Your task to perform on an android device: delete location history Image 0: 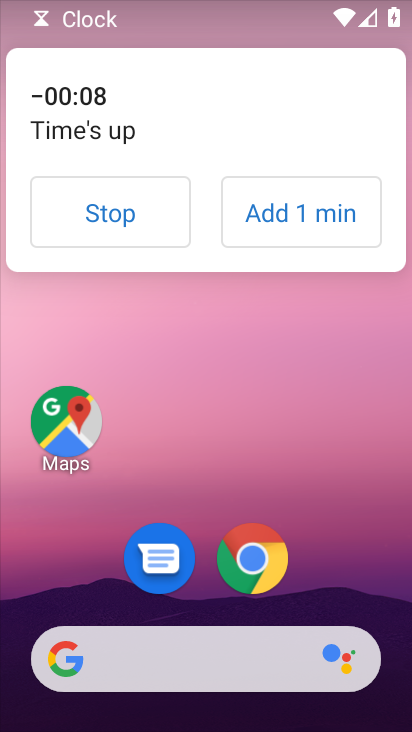
Step 0: click (120, 200)
Your task to perform on an android device: delete location history Image 1: 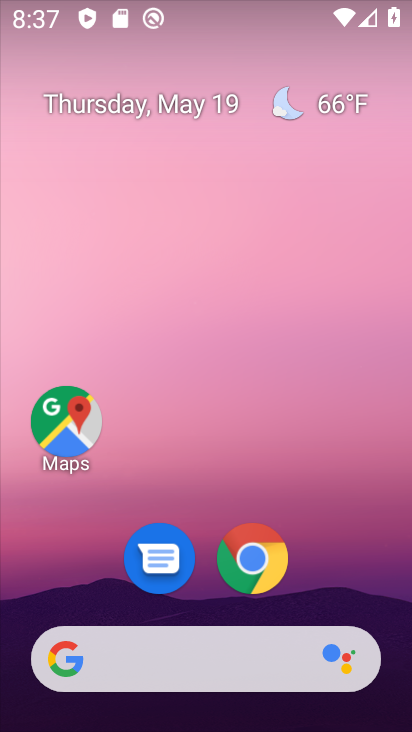
Step 1: click (72, 402)
Your task to perform on an android device: delete location history Image 2: 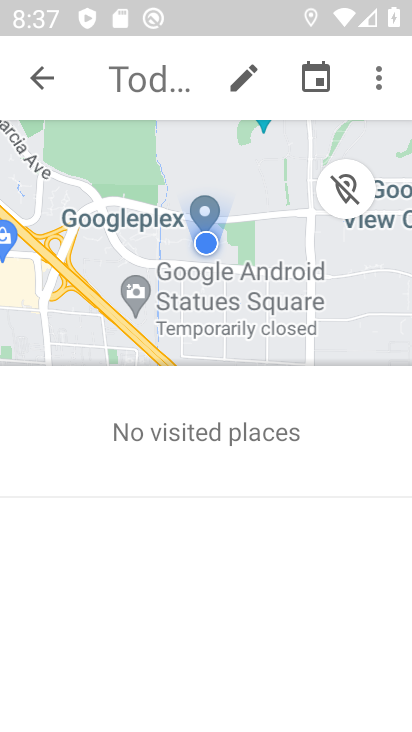
Step 2: click (53, 69)
Your task to perform on an android device: delete location history Image 3: 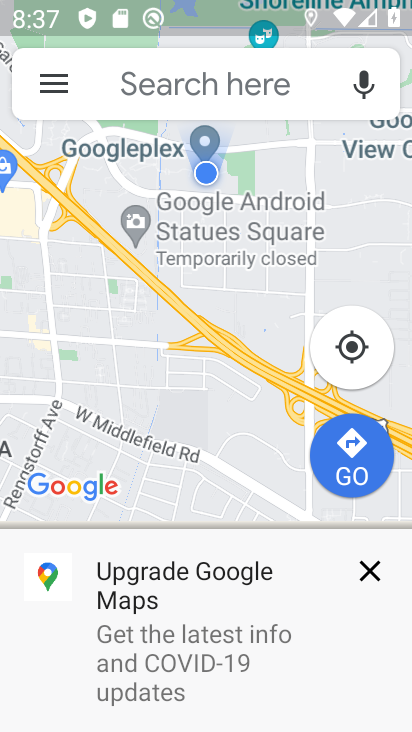
Step 3: click (59, 89)
Your task to perform on an android device: delete location history Image 4: 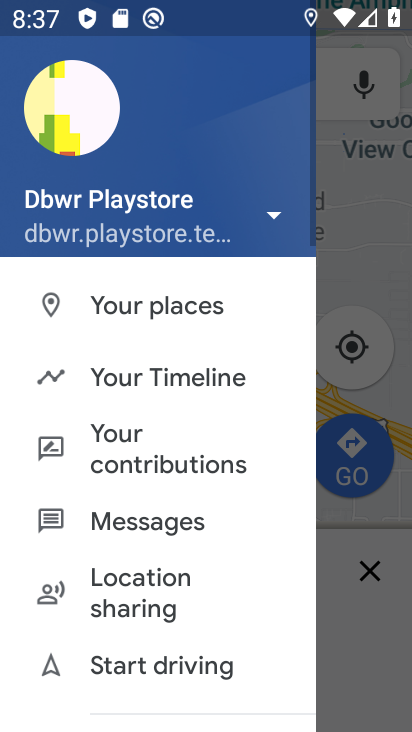
Step 4: click (134, 369)
Your task to perform on an android device: delete location history Image 5: 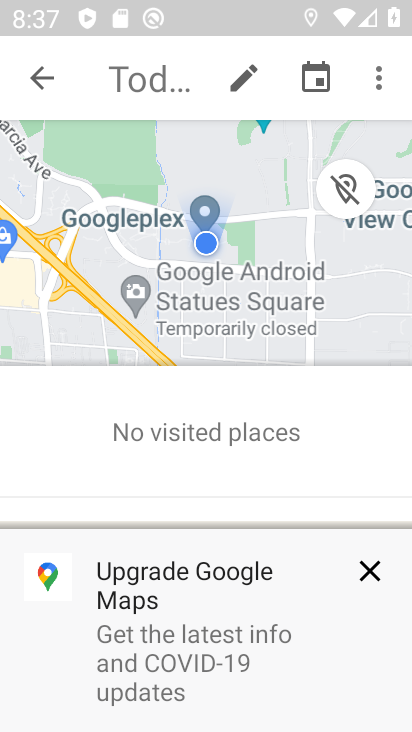
Step 5: click (379, 61)
Your task to perform on an android device: delete location history Image 6: 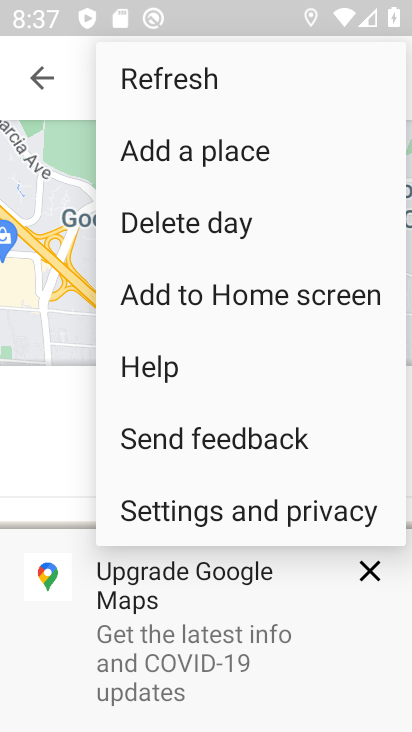
Step 6: click (251, 501)
Your task to perform on an android device: delete location history Image 7: 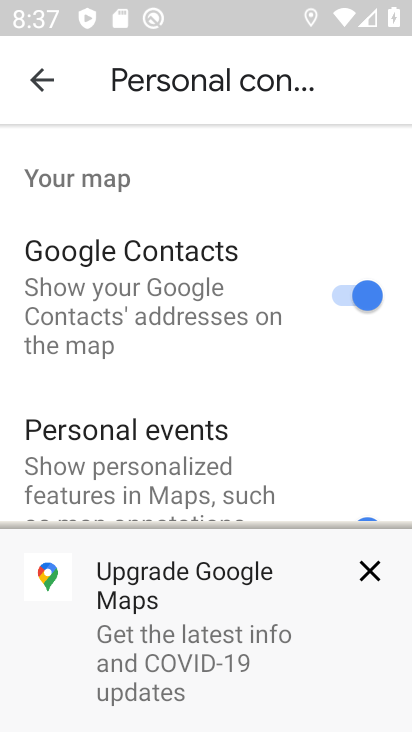
Step 7: click (366, 570)
Your task to perform on an android device: delete location history Image 8: 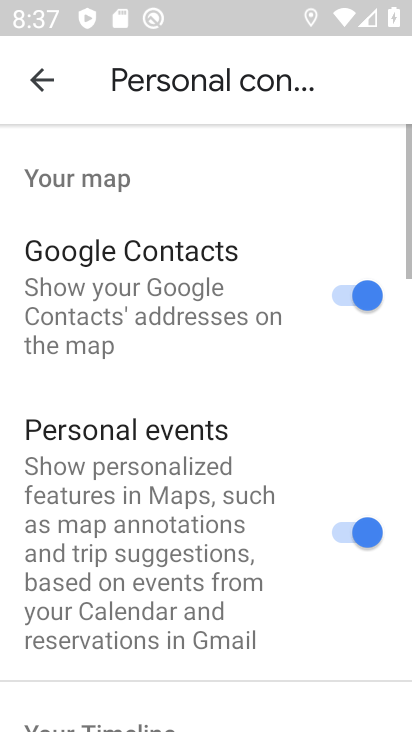
Step 8: drag from (205, 563) to (209, 246)
Your task to perform on an android device: delete location history Image 9: 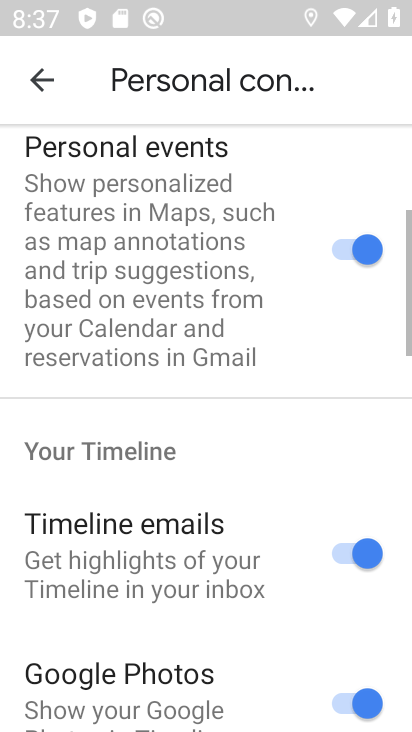
Step 9: drag from (205, 468) to (210, 251)
Your task to perform on an android device: delete location history Image 10: 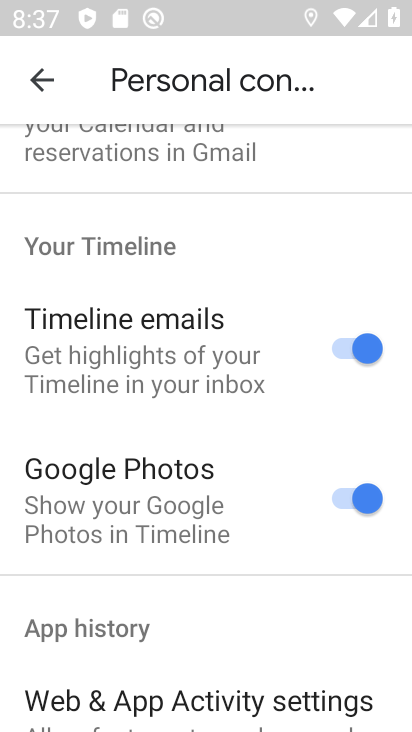
Step 10: drag from (209, 586) to (271, 245)
Your task to perform on an android device: delete location history Image 11: 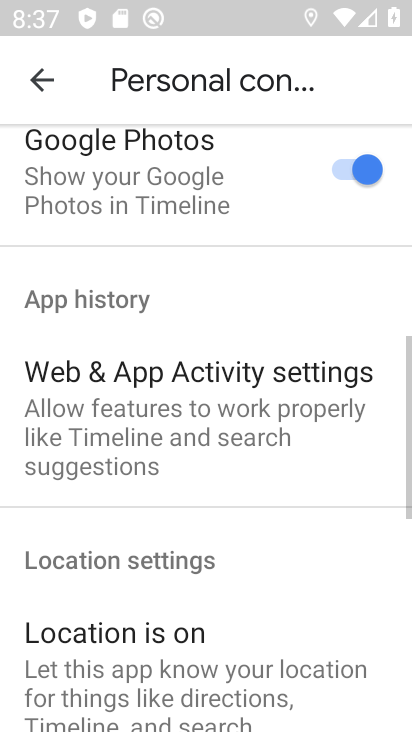
Step 11: drag from (257, 593) to (263, 462)
Your task to perform on an android device: delete location history Image 12: 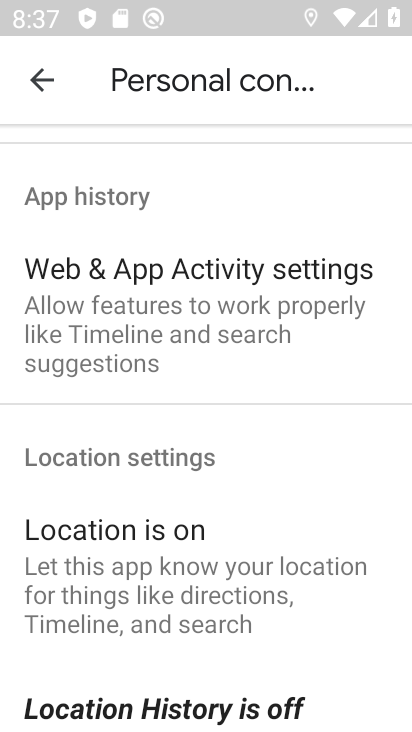
Step 12: drag from (239, 646) to (278, 381)
Your task to perform on an android device: delete location history Image 13: 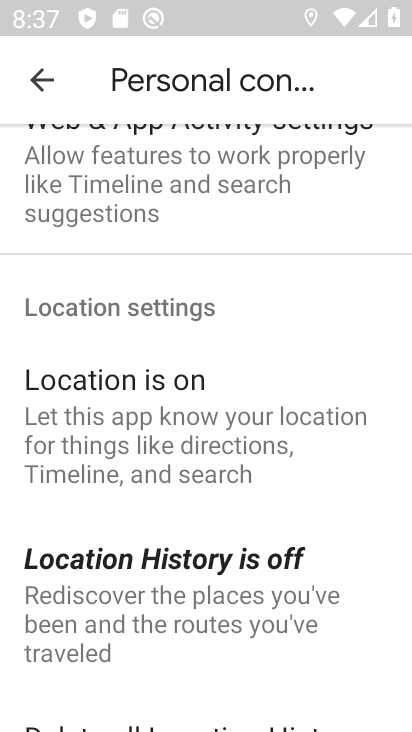
Step 13: drag from (241, 632) to (252, 415)
Your task to perform on an android device: delete location history Image 14: 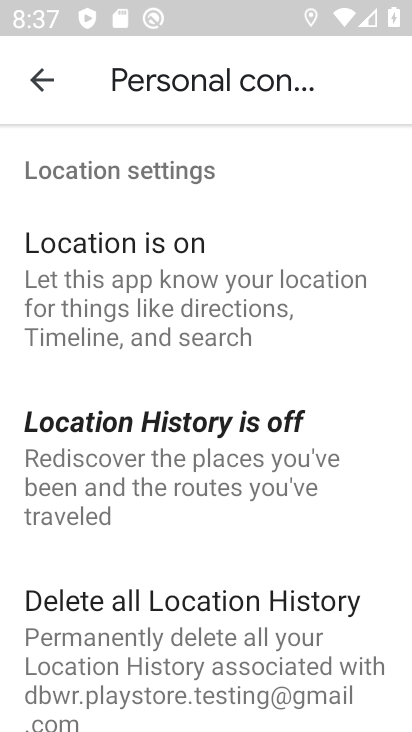
Step 14: click (204, 618)
Your task to perform on an android device: delete location history Image 15: 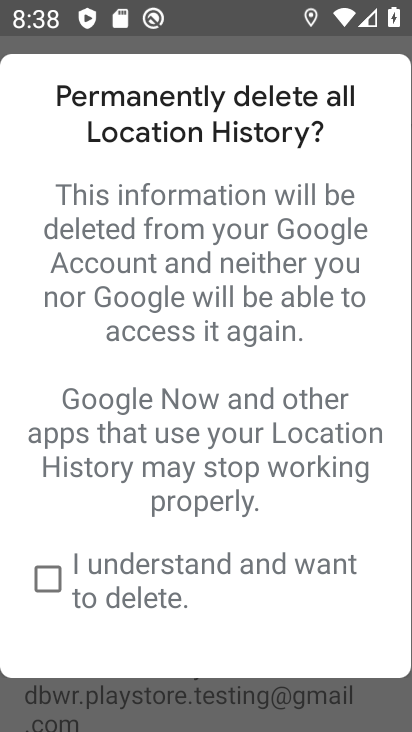
Step 15: click (150, 574)
Your task to perform on an android device: delete location history Image 16: 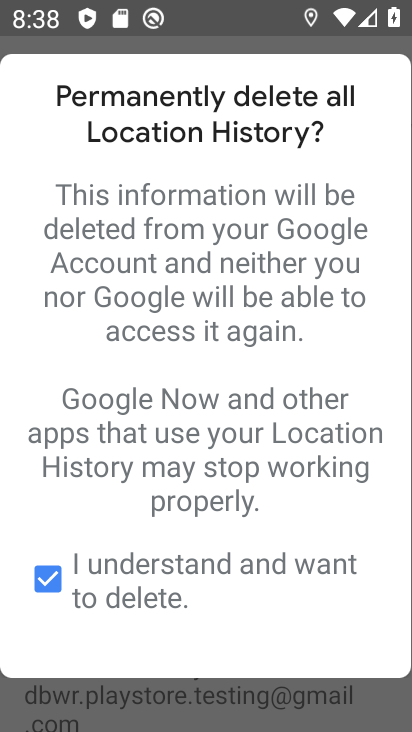
Step 16: drag from (212, 588) to (238, 295)
Your task to perform on an android device: delete location history Image 17: 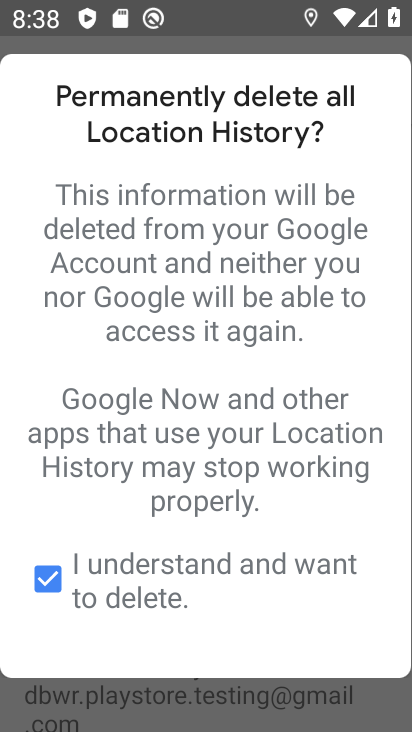
Step 17: click (325, 664)
Your task to perform on an android device: delete location history Image 18: 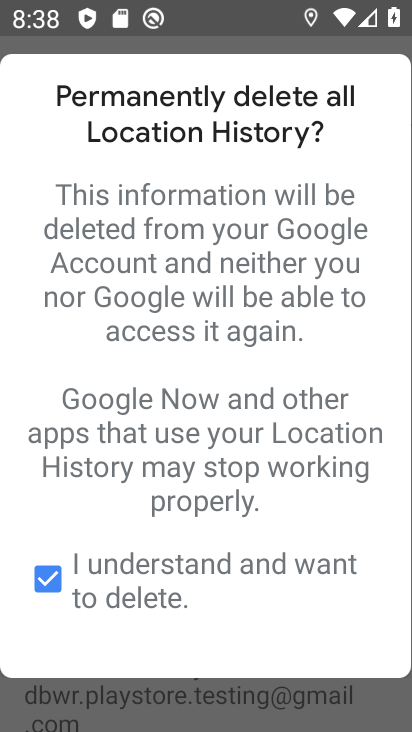
Step 18: click (348, 668)
Your task to perform on an android device: delete location history Image 19: 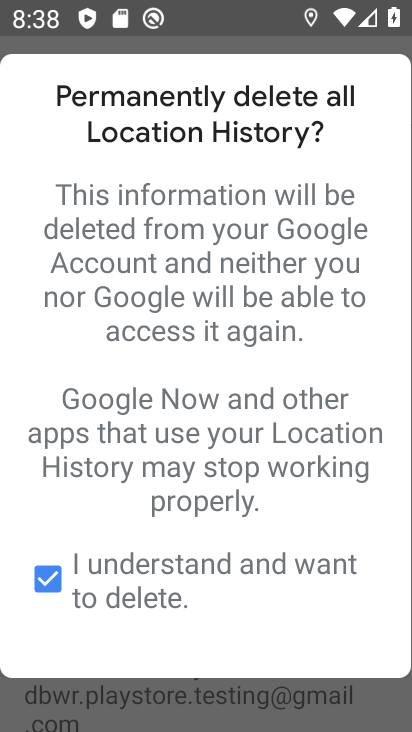
Step 19: click (341, 673)
Your task to perform on an android device: delete location history Image 20: 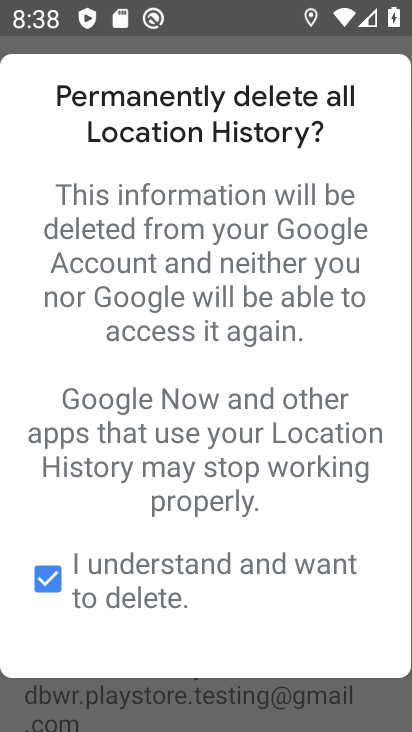
Step 20: click (341, 673)
Your task to perform on an android device: delete location history Image 21: 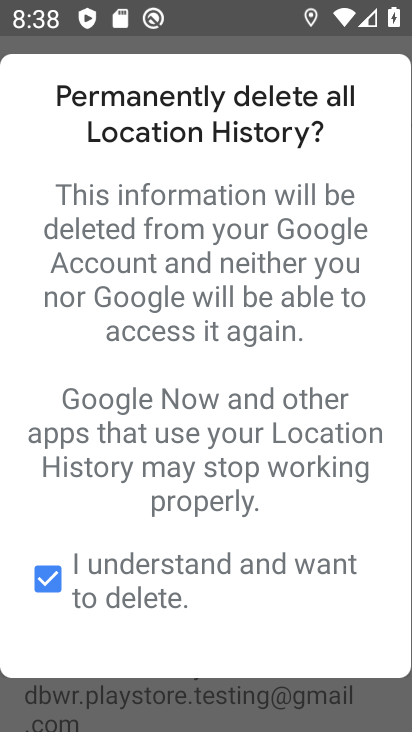
Step 21: click (345, 672)
Your task to perform on an android device: delete location history Image 22: 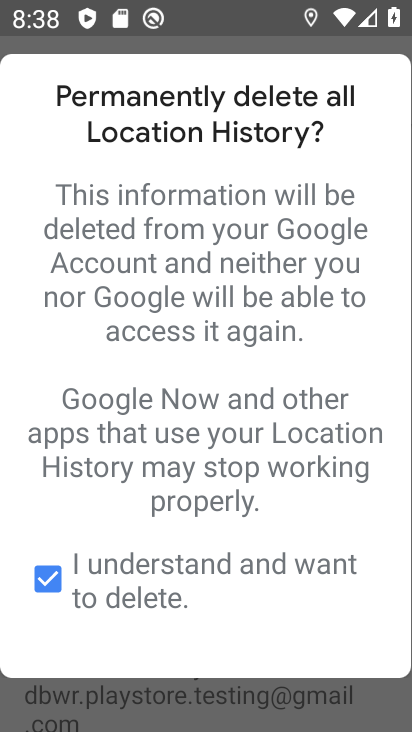
Step 22: click (346, 672)
Your task to perform on an android device: delete location history Image 23: 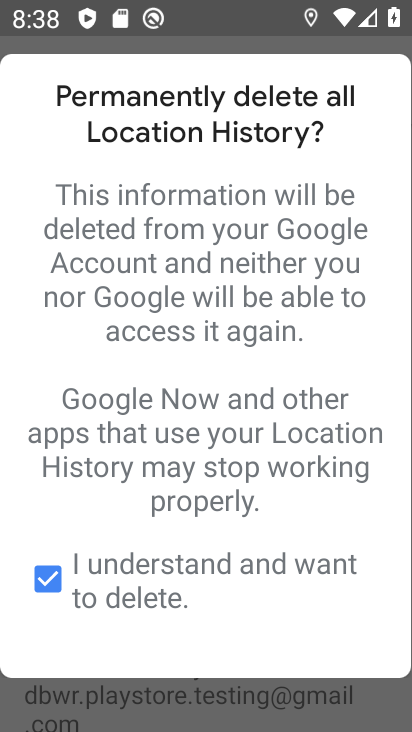
Step 23: click (346, 672)
Your task to perform on an android device: delete location history Image 24: 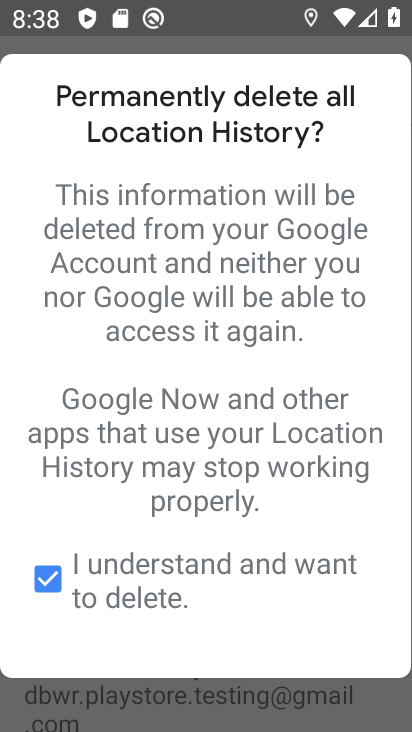
Step 24: click (255, 654)
Your task to perform on an android device: delete location history Image 25: 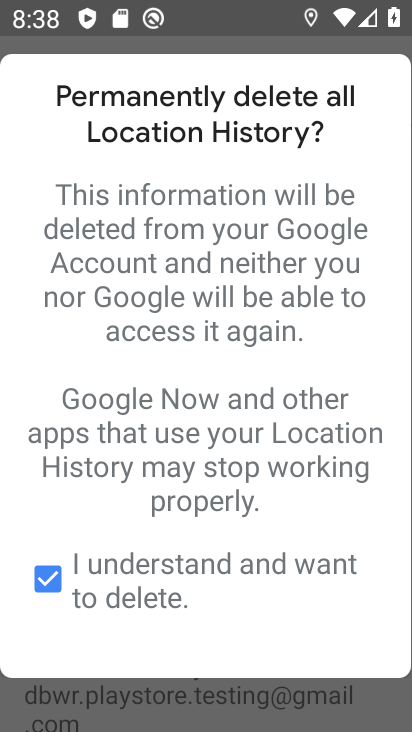
Step 25: task complete